Your task to perform on an android device: Go to Wikipedia Image 0: 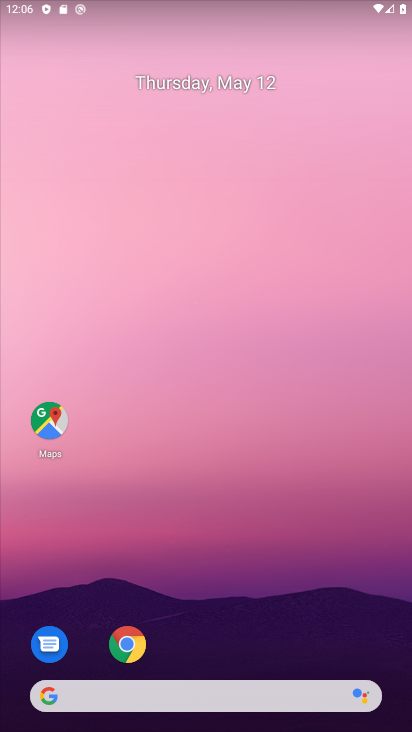
Step 0: click (131, 649)
Your task to perform on an android device: Go to Wikipedia Image 1: 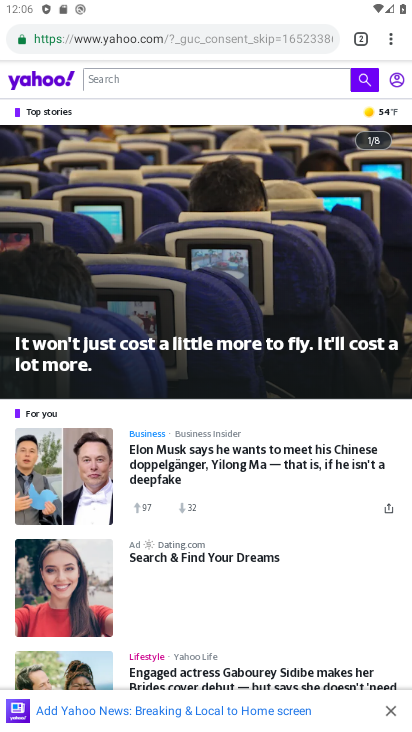
Step 1: click (355, 32)
Your task to perform on an android device: Go to Wikipedia Image 2: 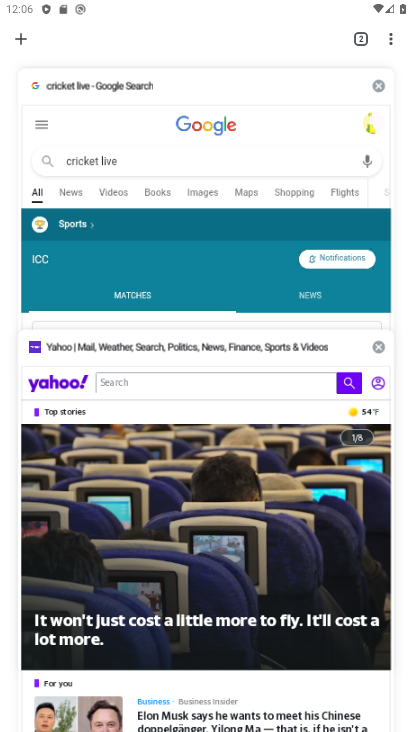
Step 2: click (22, 34)
Your task to perform on an android device: Go to Wikipedia Image 3: 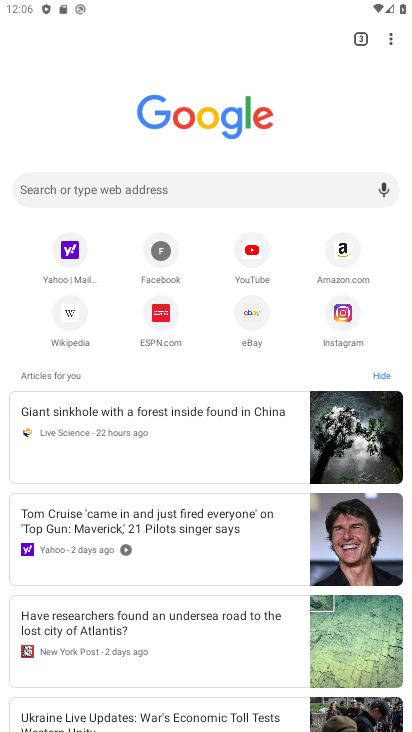
Step 3: click (68, 312)
Your task to perform on an android device: Go to Wikipedia Image 4: 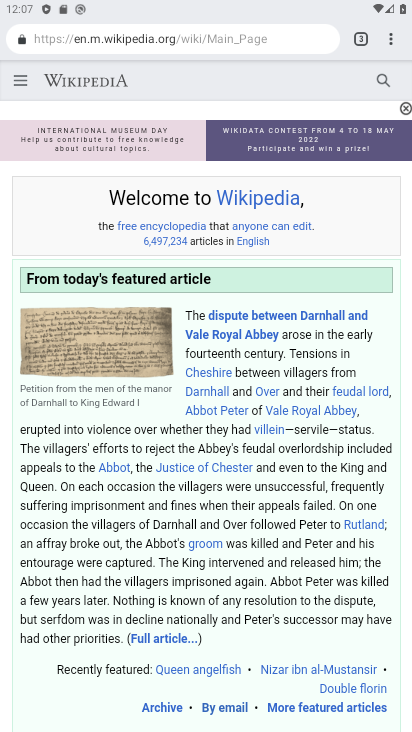
Step 4: task complete